Your task to perform on an android device: Turn off the flashlight Image 0: 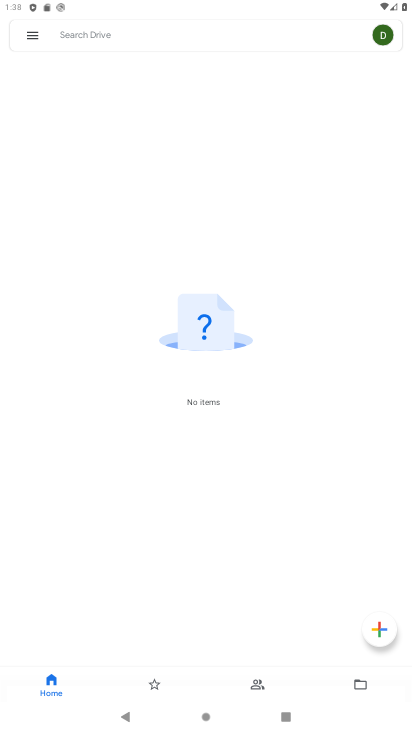
Step 0: press home button
Your task to perform on an android device: Turn off the flashlight Image 1: 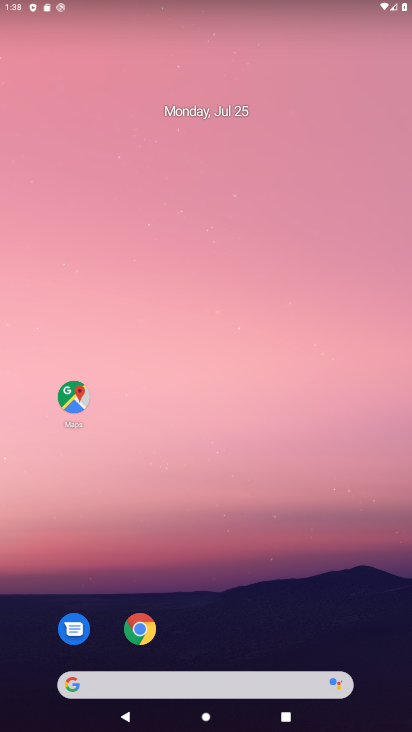
Step 1: drag from (357, 481) to (277, 1)
Your task to perform on an android device: Turn off the flashlight Image 2: 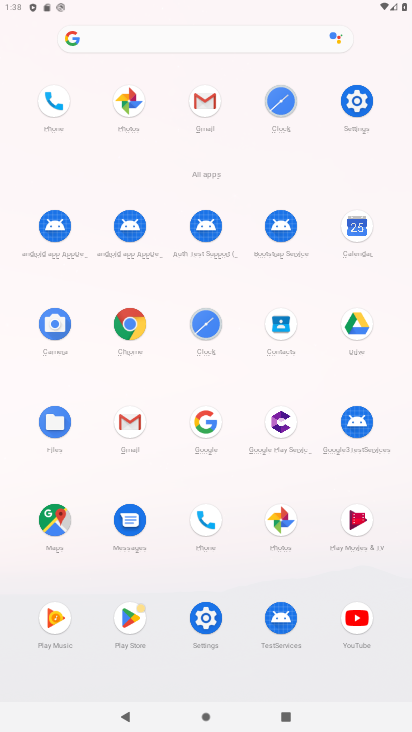
Step 2: click (357, 110)
Your task to perform on an android device: Turn off the flashlight Image 3: 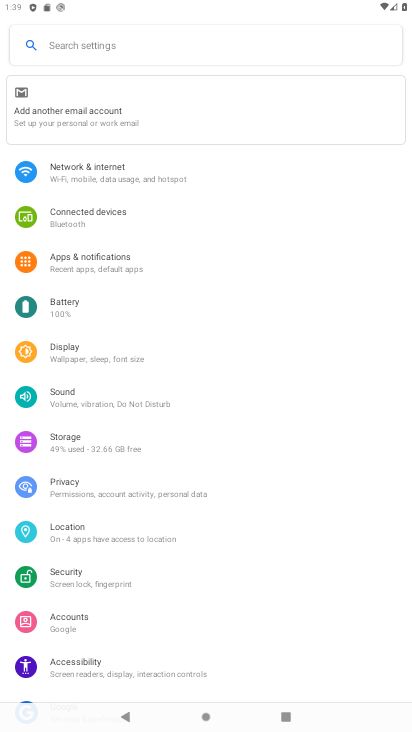
Step 3: task complete